Your task to perform on an android device: see tabs open on other devices in the chrome app Image 0: 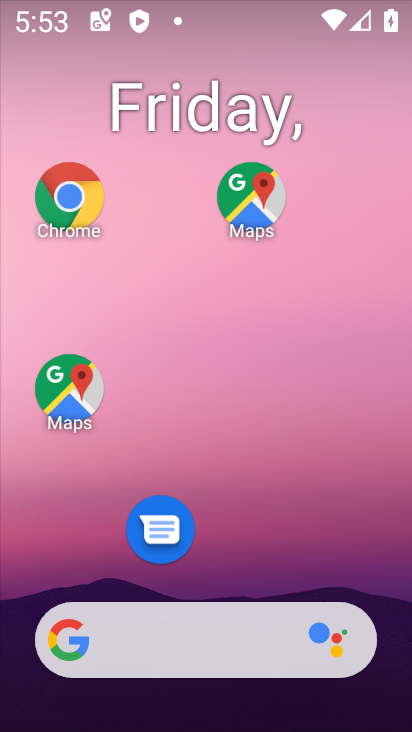
Step 0: click (67, 226)
Your task to perform on an android device: see tabs open on other devices in the chrome app Image 1: 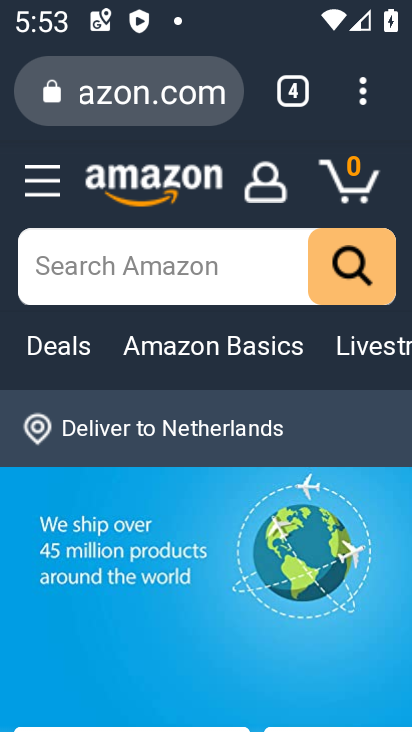
Step 1: click (369, 104)
Your task to perform on an android device: see tabs open on other devices in the chrome app Image 2: 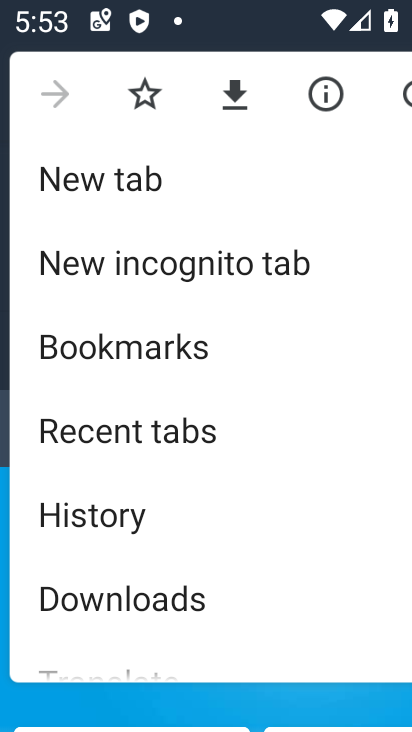
Step 2: click (196, 443)
Your task to perform on an android device: see tabs open on other devices in the chrome app Image 3: 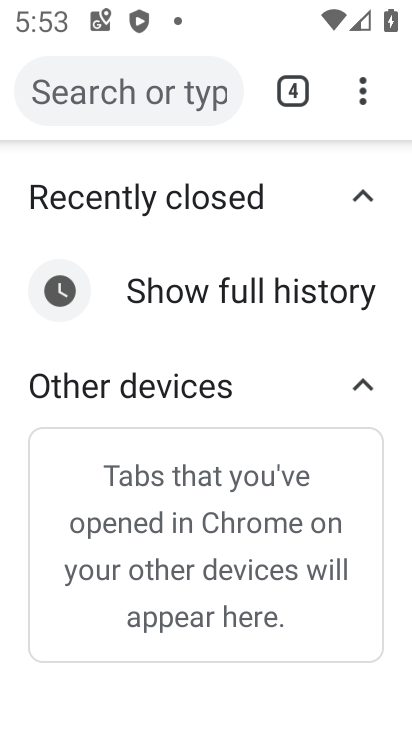
Step 3: task complete